Your task to perform on an android device: show emergency info Image 0: 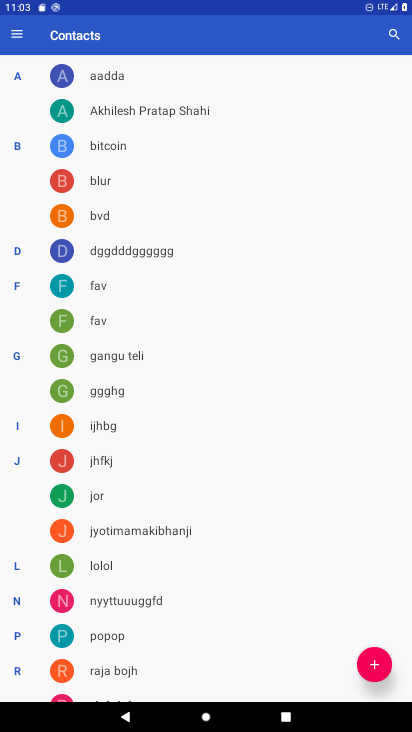
Step 0: press home button
Your task to perform on an android device: show emergency info Image 1: 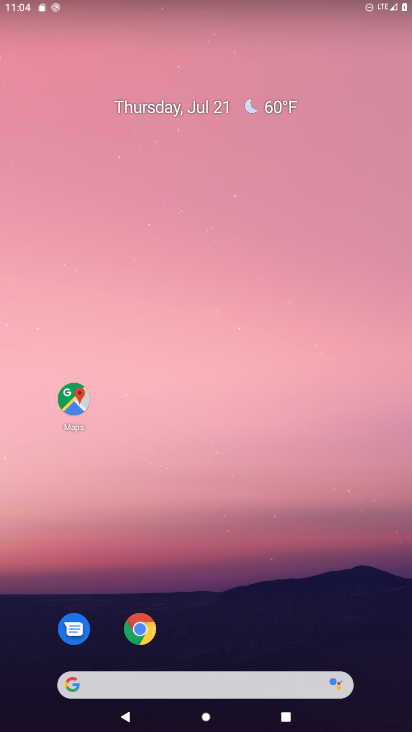
Step 1: drag from (247, 585) to (335, 16)
Your task to perform on an android device: show emergency info Image 2: 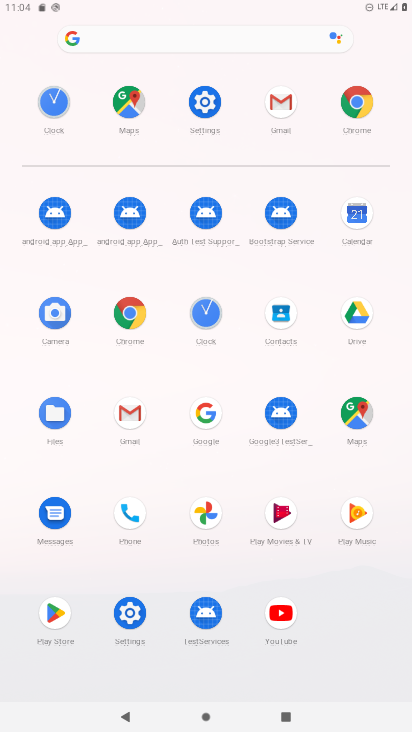
Step 2: click (202, 92)
Your task to perform on an android device: show emergency info Image 3: 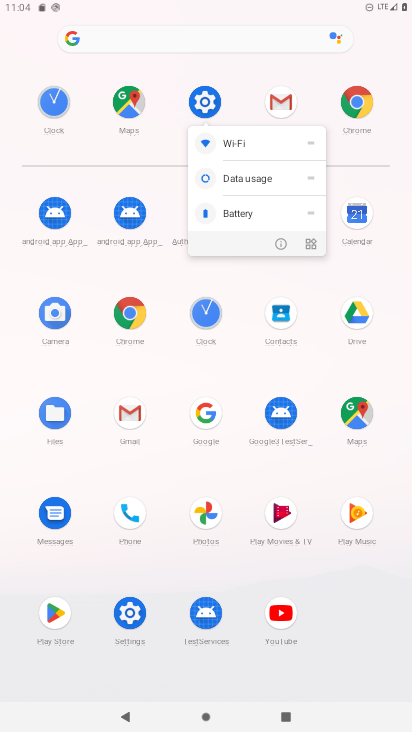
Step 3: click (203, 100)
Your task to perform on an android device: show emergency info Image 4: 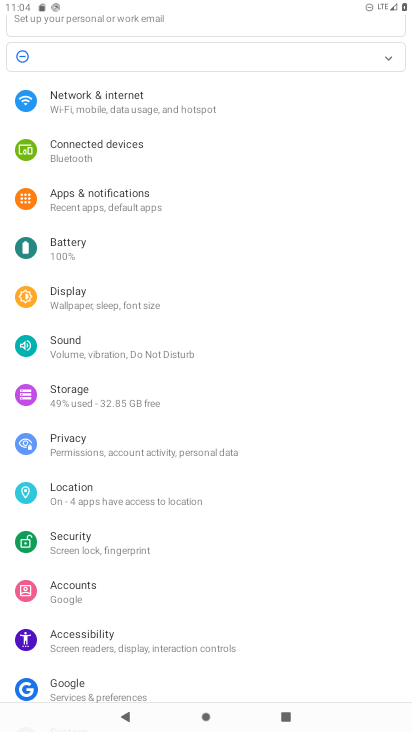
Step 4: drag from (224, 668) to (254, 81)
Your task to perform on an android device: show emergency info Image 5: 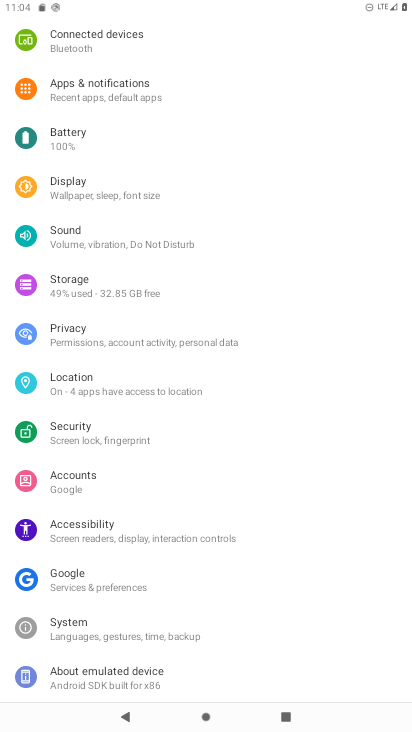
Step 5: click (156, 673)
Your task to perform on an android device: show emergency info Image 6: 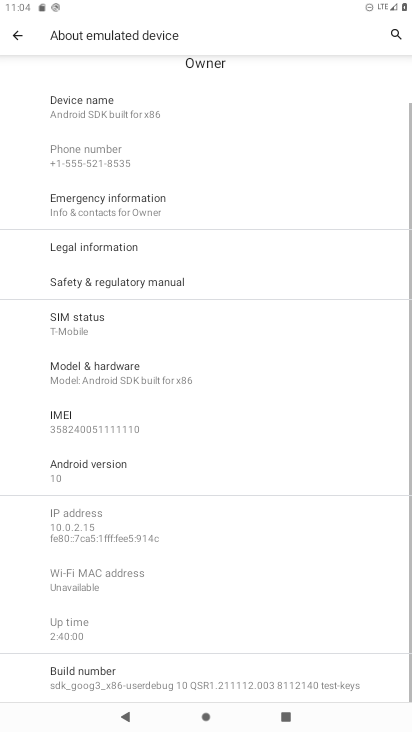
Step 6: click (121, 205)
Your task to perform on an android device: show emergency info Image 7: 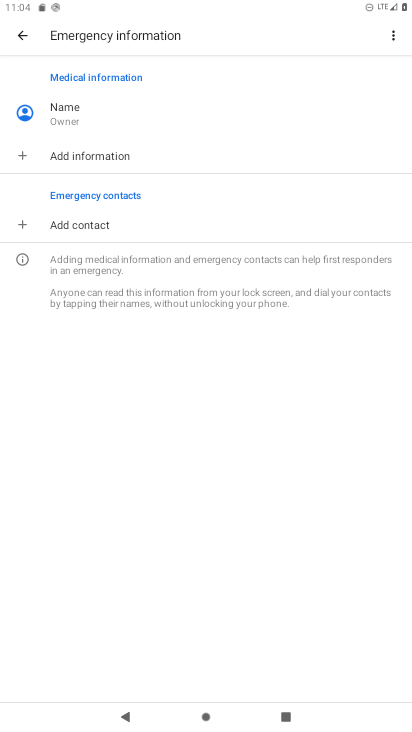
Step 7: task complete